Your task to perform on an android device: View the shopping cart on newegg. Add "usb-a" to the cart on newegg, then select checkout. Image 0: 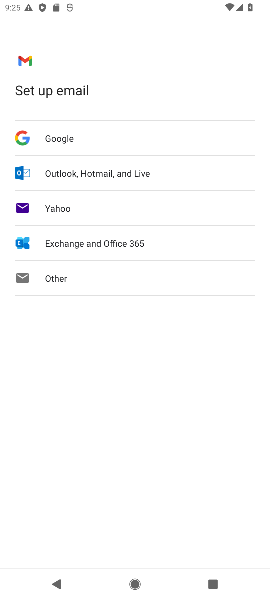
Step 0: press home button
Your task to perform on an android device: View the shopping cart on newegg. Add "usb-a" to the cart on newegg, then select checkout. Image 1: 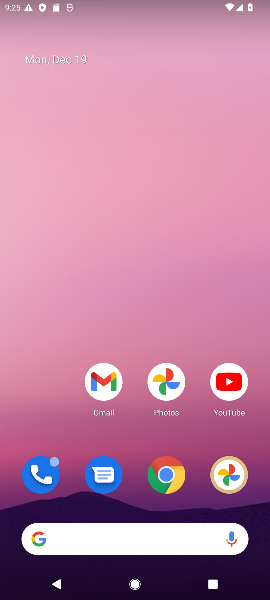
Step 1: click (163, 474)
Your task to perform on an android device: View the shopping cart on newegg. Add "usb-a" to the cart on newegg, then select checkout. Image 2: 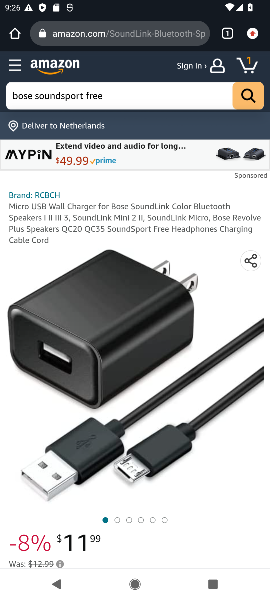
Step 2: click (153, 31)
Your task to perform on an android device: View the shopping cart on newegg. Add "usb-a" to the cart on newegg, then select checkout. Image 3: 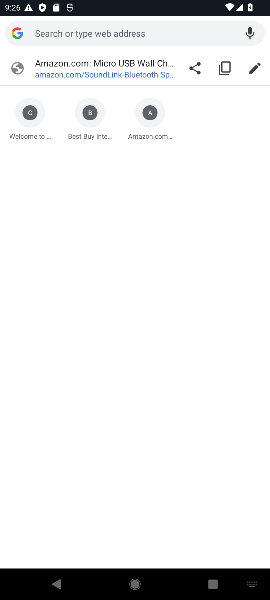
Step 3: type "newegg"
Your task to perform on an android device: View the shopping cart on newegg. Add "usb-a" to the cart on newegg, then select checkout. Image 4: 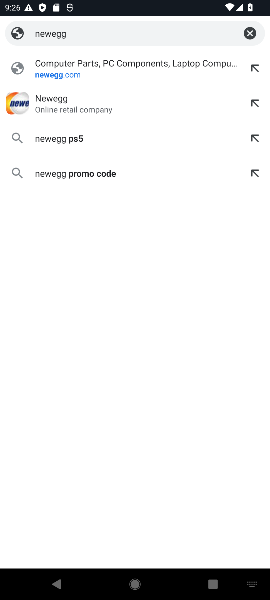
Step 4: click (82, 74)
Your task to perform on an android device: View the shopping cart on newegg. Add "usb-a" to the cart on newegg, then select checkout. Image 5: 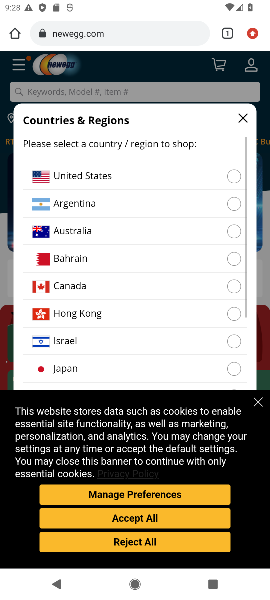
Step 5: click (128, 181)
Your task to perform on an android device: View the shopping cart on newegg. Add "usb-a" to the cart on newegg, then select checkout. Image 6: 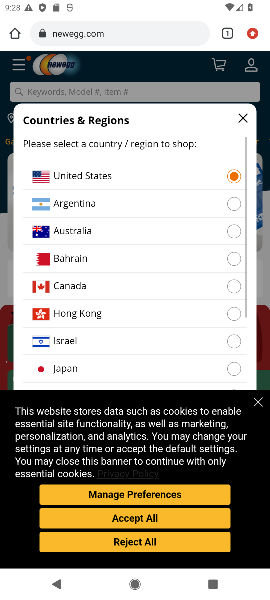
Step 6: click (259, 405)
Your task to perform on an android device: View the shopping cart on newegg. Add "usb-a" to the cart on newegg, then select checkout. Image 7: 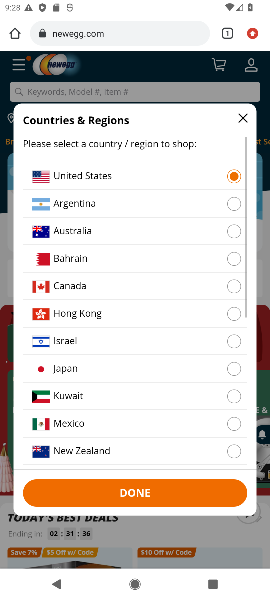
Step 7: click (172, 174)
Your task to perform on an android device: View the shopping cart on newegg. Add "usb-a" to the cart on newegg, then select checkout. Image 8: 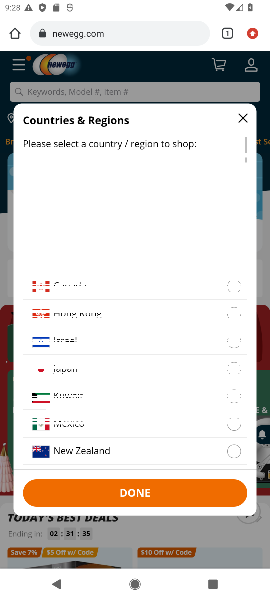
Step 8: click (258, 402)
Your task to perform on an android device: View the shopping cart on newegg. Add "usb-a" to the cart on newegg, then select checkout. Image 9: 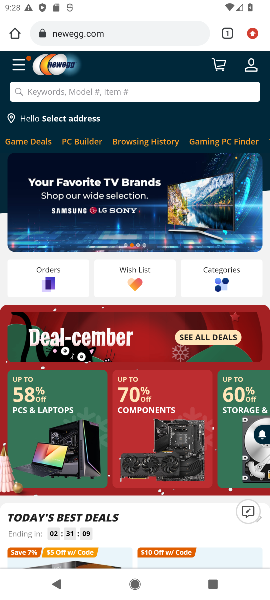
Step 9: task complete